Your task to perform on an android device: change the clock style Image 0: 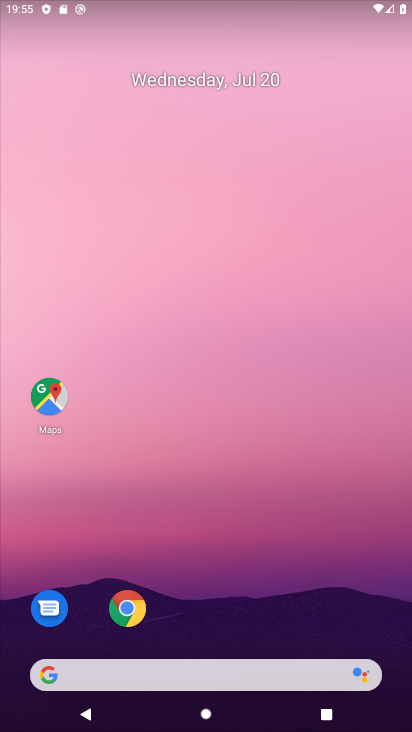
Step 0: drag from (326, 576) to (306, 75)
Your task to perform on an android device: change the clock style Image 1: 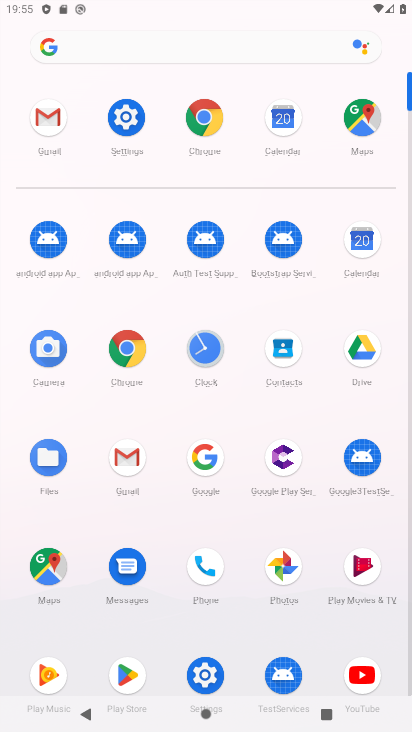
Step 1: click (205, 345)
Your task to perform on an android device: change the clock style Image 2: 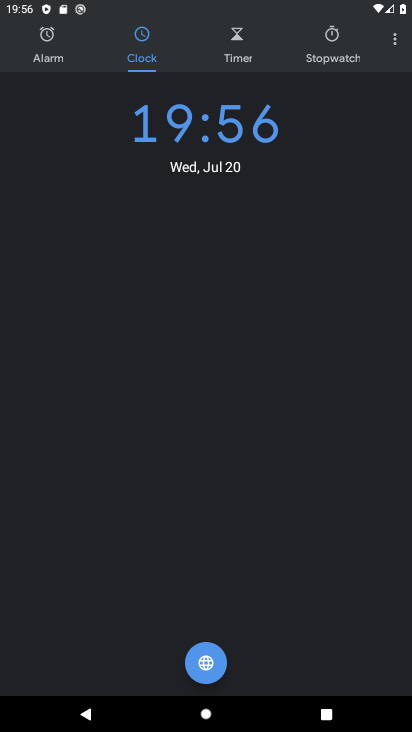
Step 2: click (399, 41)
Your task to perform on an android device: change the clock style Image 3: 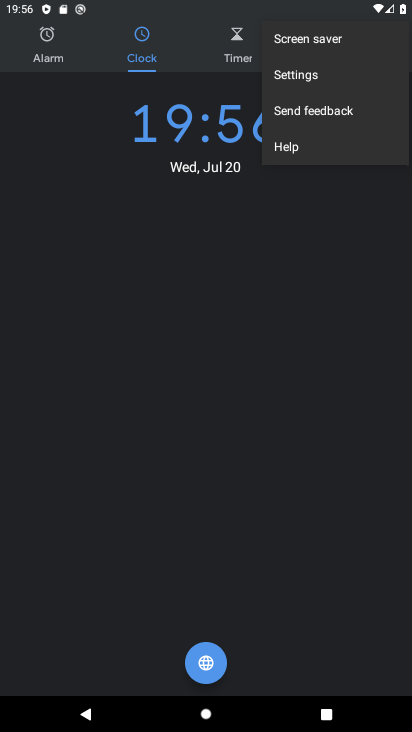
Step 3: click (307, 76)
Your task to perform on an android device: change the clock style Image 4: 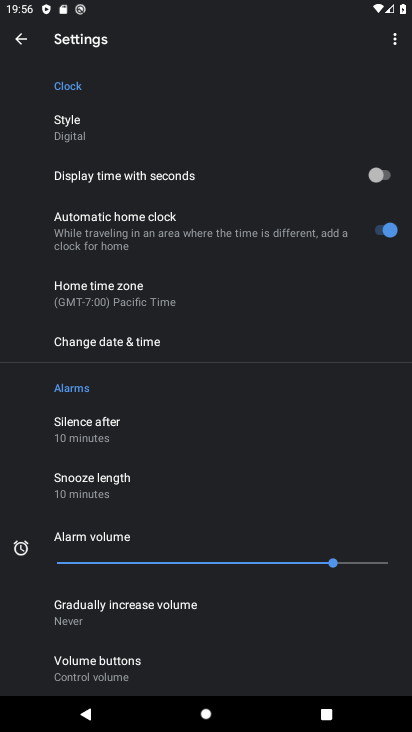
Step 4: click (86, 126)
Your task to perform on an android device: change the clock style Image 5: 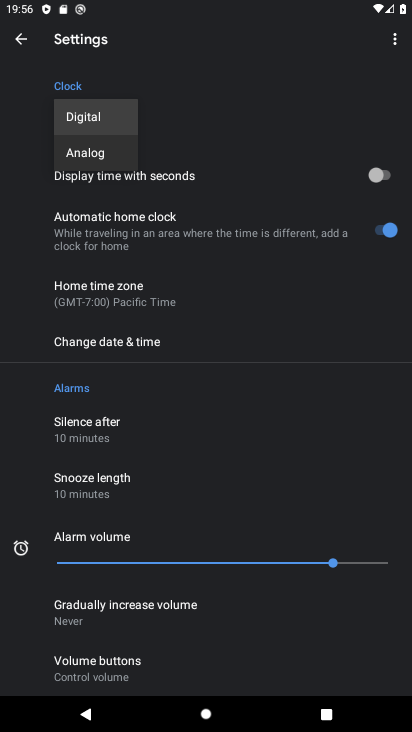
Step 5: click (89, 149)
Your task to perform on an android device: change the clock style Image 6: 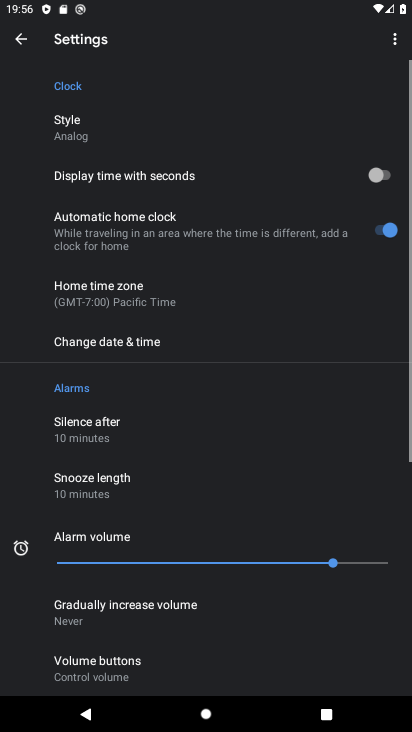
Step 6: task complete